Your task to perform on an android device: turn smart compose on in the gmail app Image 0: 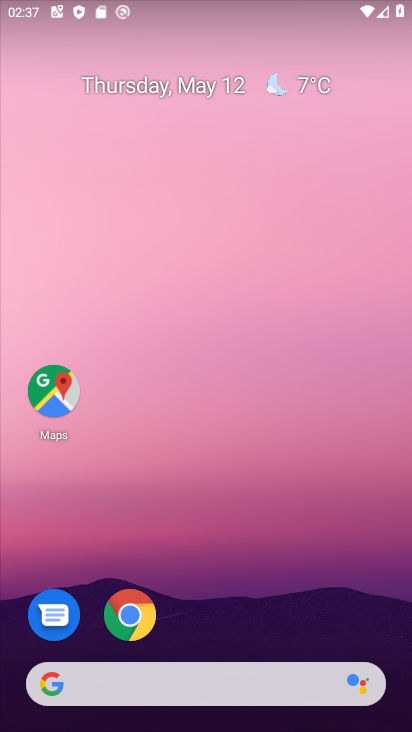
Step 0: drag from (206, 679) to (187, 213)
Your task to perform on an android device: turn smart compose on in the gmail app Image 1: 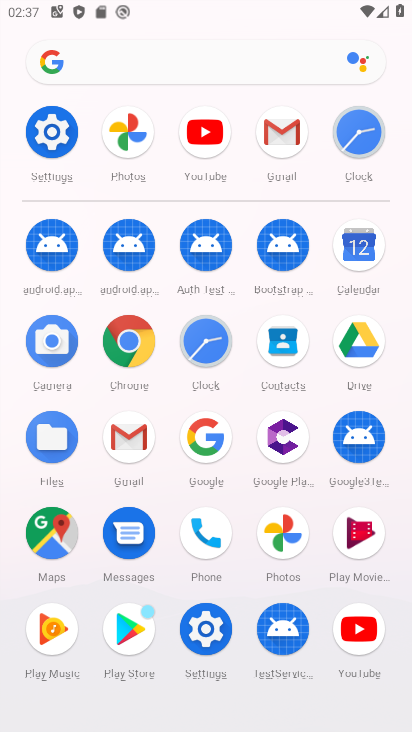
Step 1: click (127, 441)
Your task to perform on an android device: turn smart compose on in the gmail app Image 2: 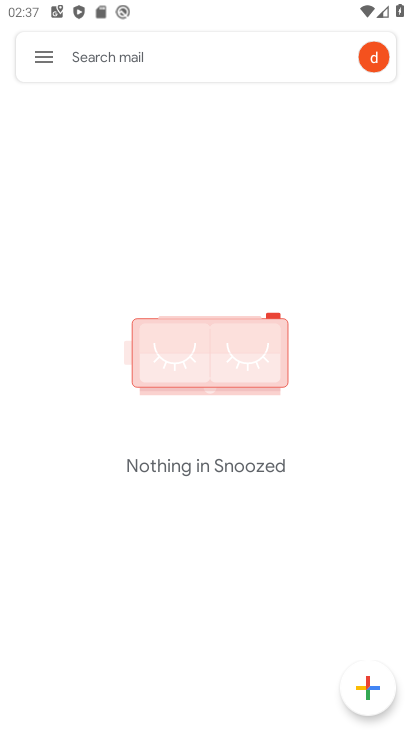
Step 2: click (44, 58)
Your task to perform on an android device: turn smart compose on in the gmail app Image 3: 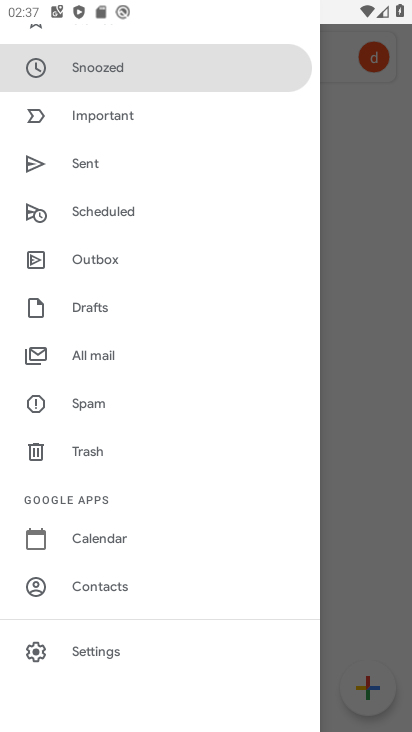
Step 3: click (152, 645)
Your task to perform on an android device: turn smart compose on in the gmail app Image 4: 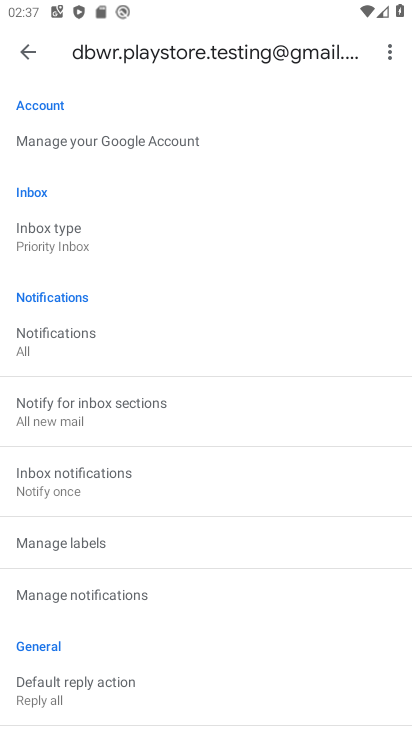
Step 4: task complete